Your task to perform on an android device: turn on priority inbox in the gmail app Image 0: 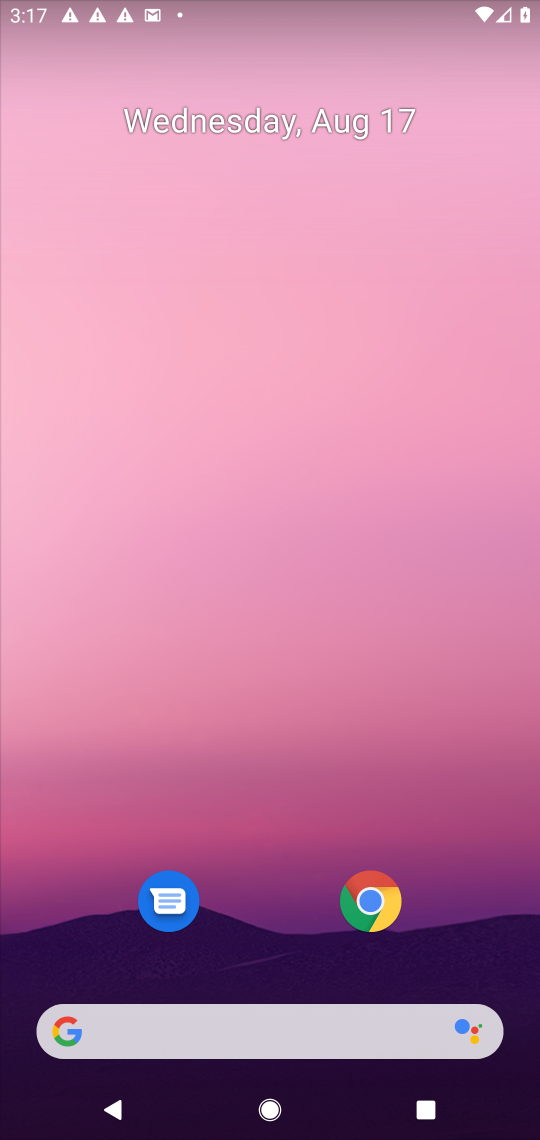
Step 0: click (335, 269)
Your task to perform on an android device: turn on priority inbox in the gmail app Image 1: 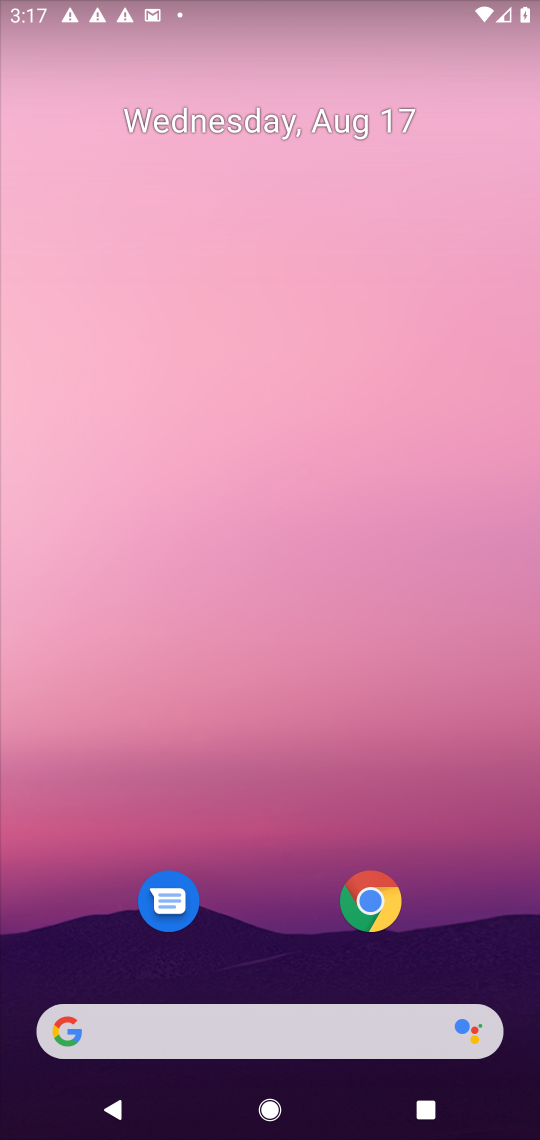
Step 1: drag from (313, 561) to (355, 261)
Your task to perform on an android device: turn on priority inbox in the gmail app Image 2: 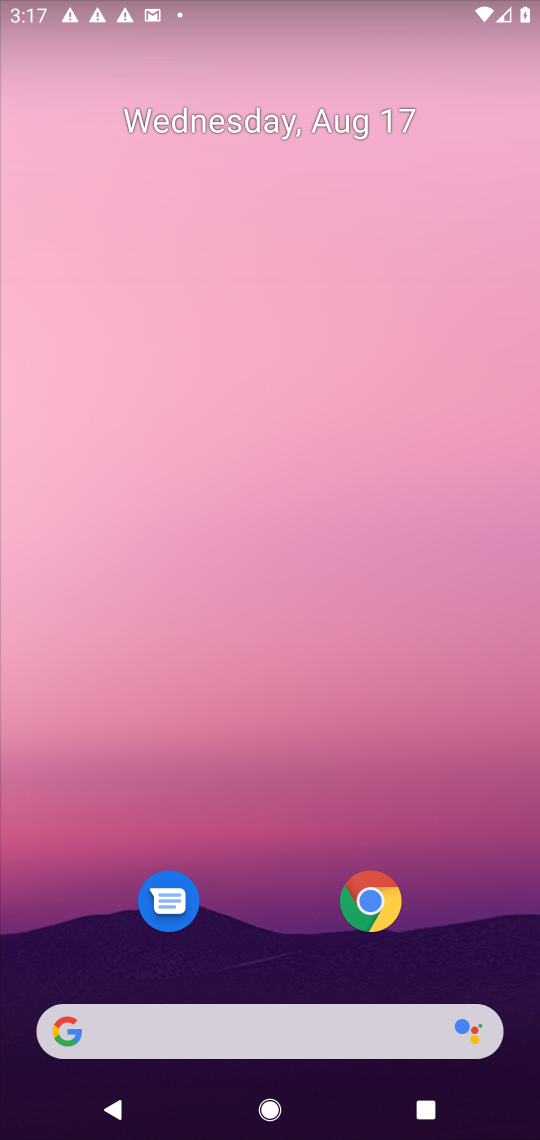
Step 2: drag from (252, 974) to (374, 128)
Your task to perform on an android device: turn on priority inbox in the gmail app Image 3: 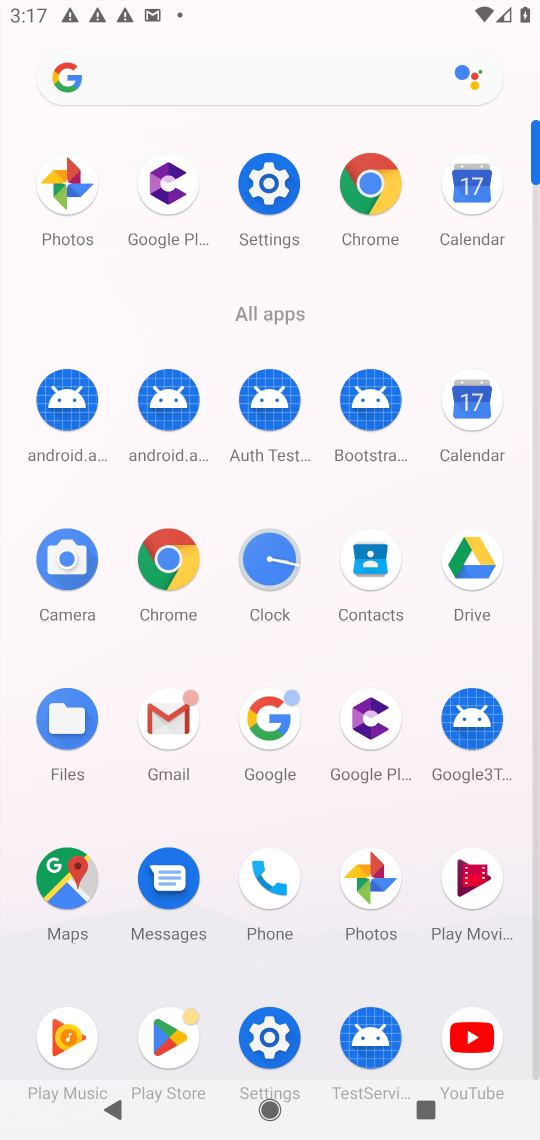
Step 3: click (156, 725)
Your task to perform on an android device: turn on priority inbox in the gmail app Image 4: 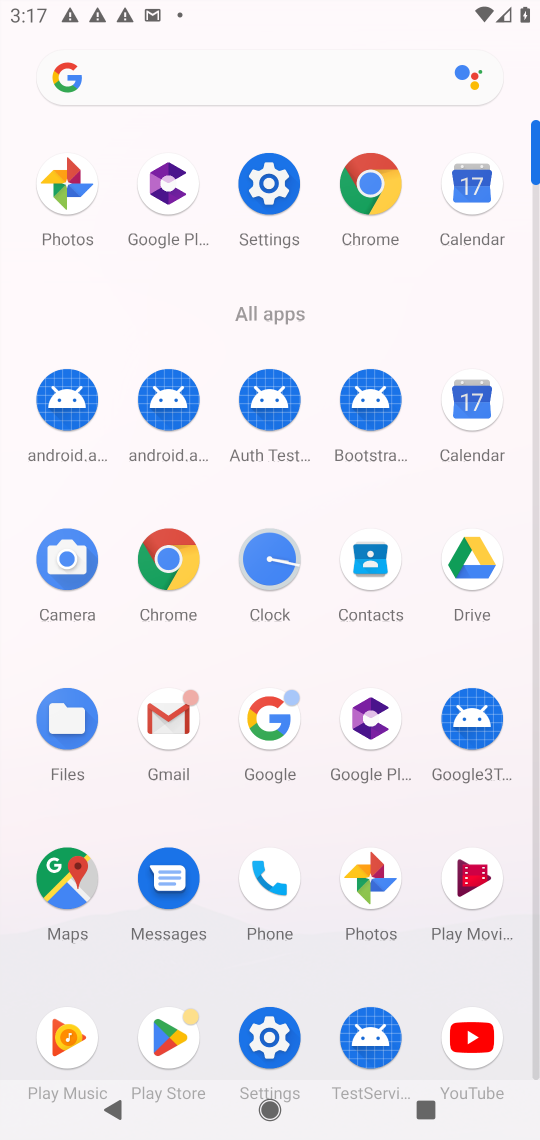
Step 4: click (156, 725)
Your task to perform on an android device: turn on priority inbox in the gmail app Image 5: 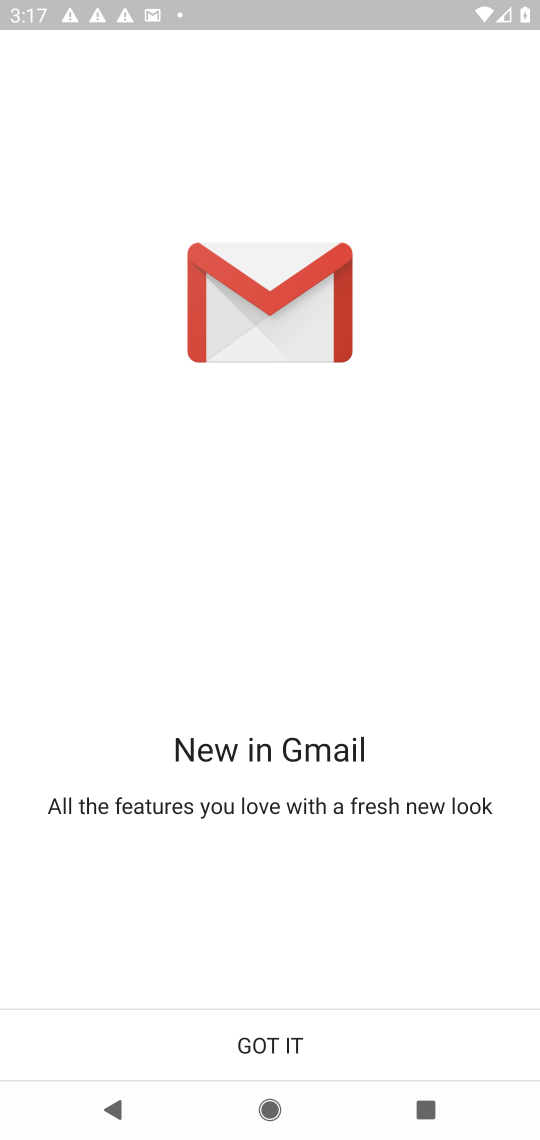
Step 5: click (259, 1051)
Your task to perform on an android device: turn on priority inbox in the gmail app Image 6: 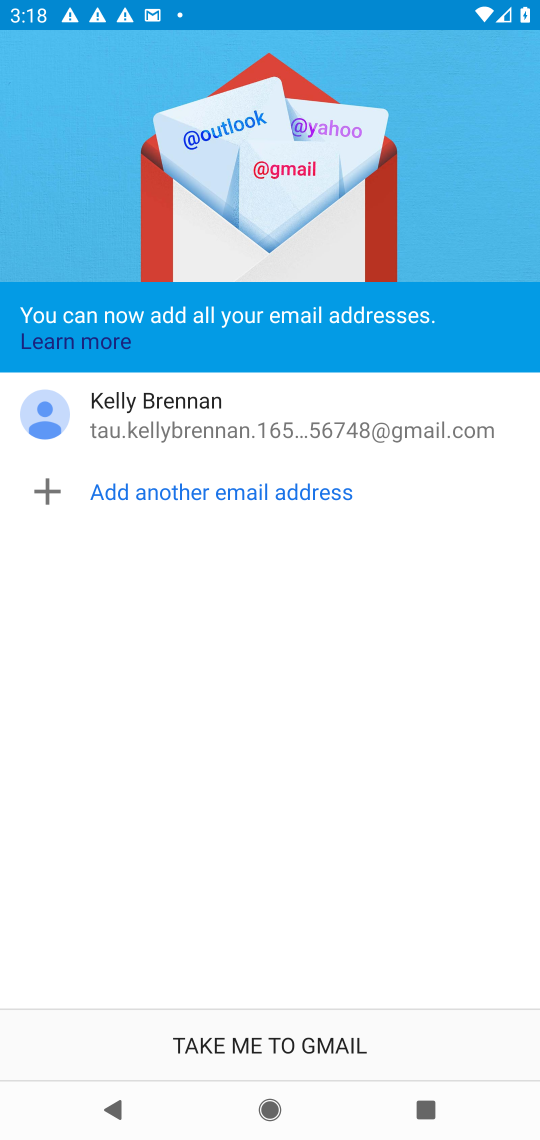
Step 6: click (259, 1048)
Your task to perform on an android device: turn on priority inbox in the gmail app Image 7: 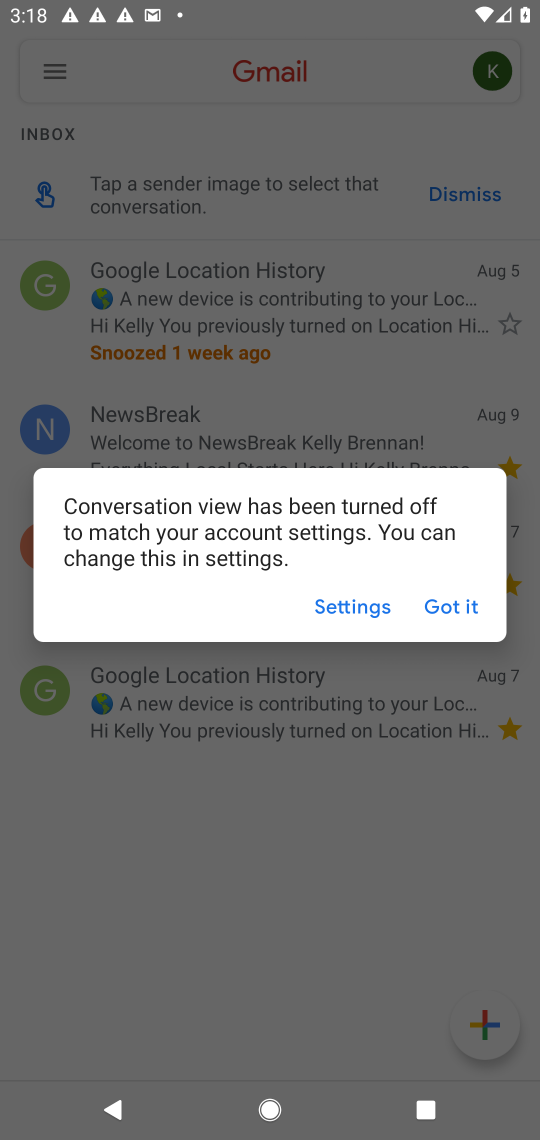
Step 7: click (468, 606)
Your task to perform on an android device: turn on priority inbox in the gmail app Image 8: 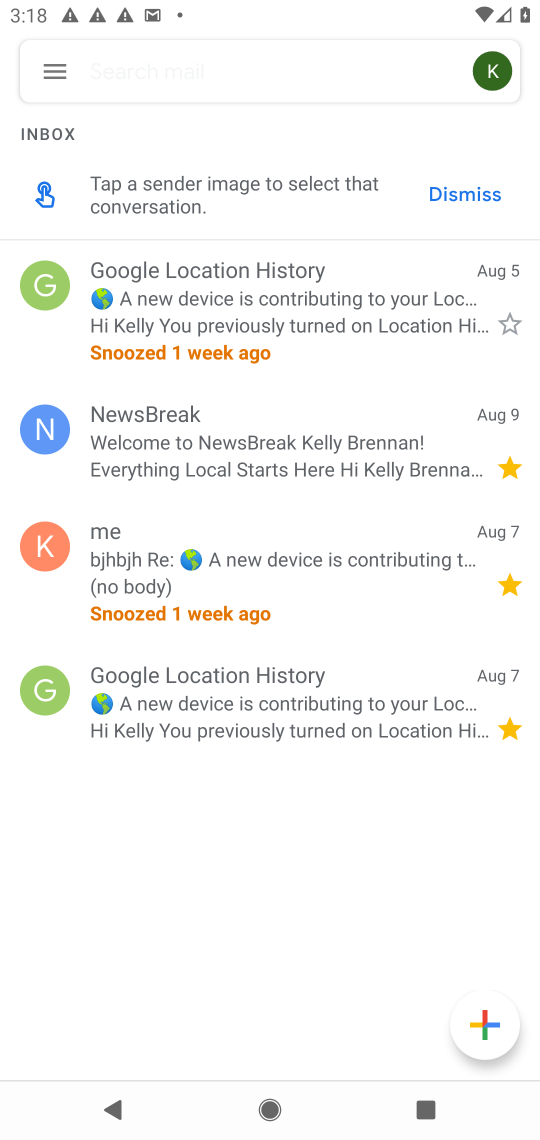
Step 8: click (53, 74)
Your task to perform on an android device: turn on priority inbox in the gmail app Image 9: 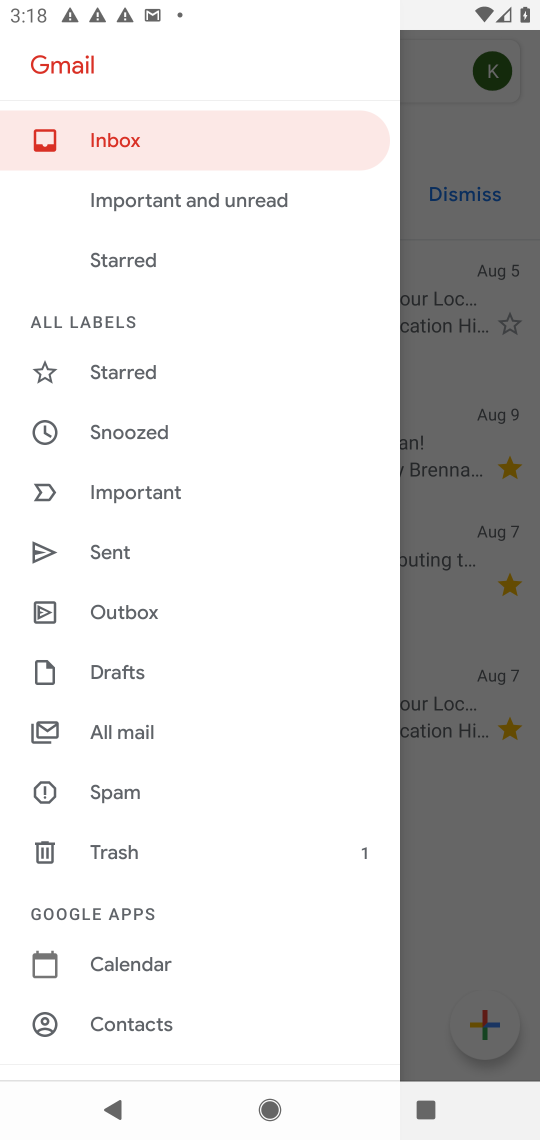
Step 9: drag from (124, 1033) to (207, 544)
Your task to perform on an android device: turn on priority inbox in the gmail app Image 10: 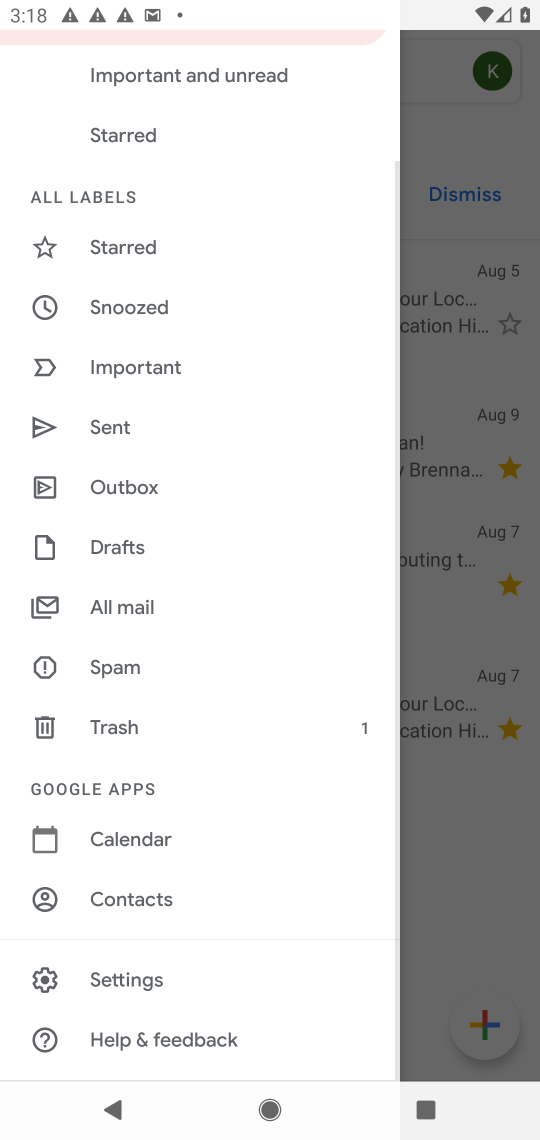
Step 10: click (101, 991)
Your task to perform on an android device: turn on priority inbox in the gmail app Image 11: 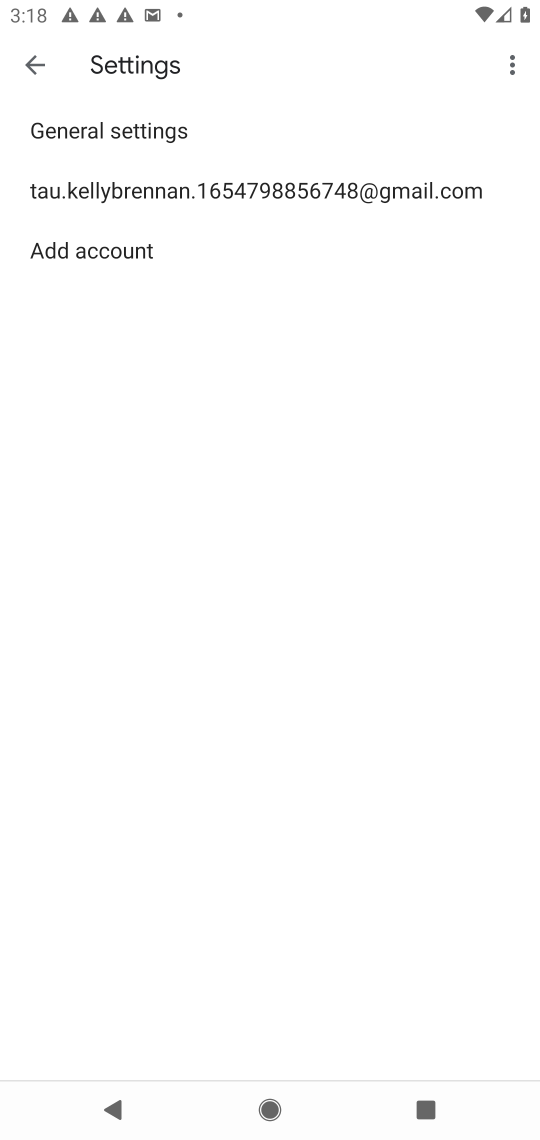
Step 11: click (248, 189)
Your task to perform on an android device: turn on priority inbox in the gmail app Image 12: 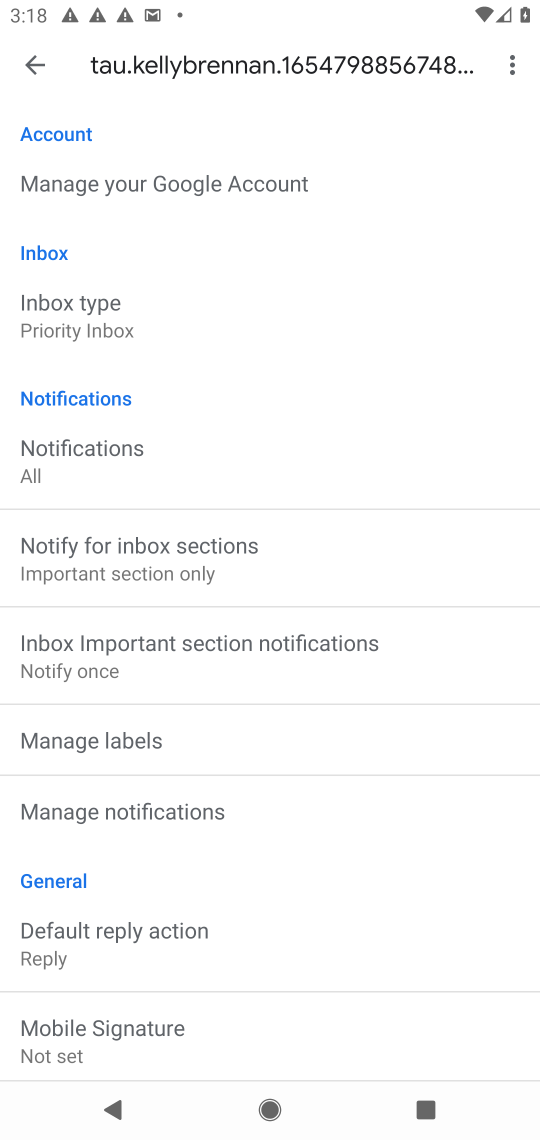
Step 12: task complete